Your task to perform on an android device: Open Google Chrome Image 0: 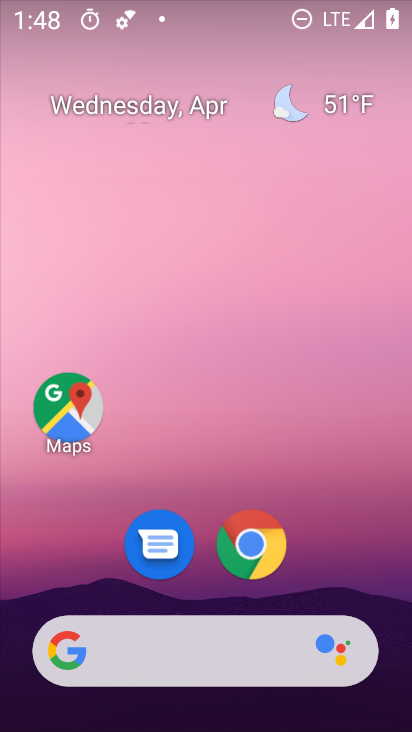
Step 0: drag from (349, 560) to (376, 146)
Your task to perform on an android device: Open Google Chrome Image 1: 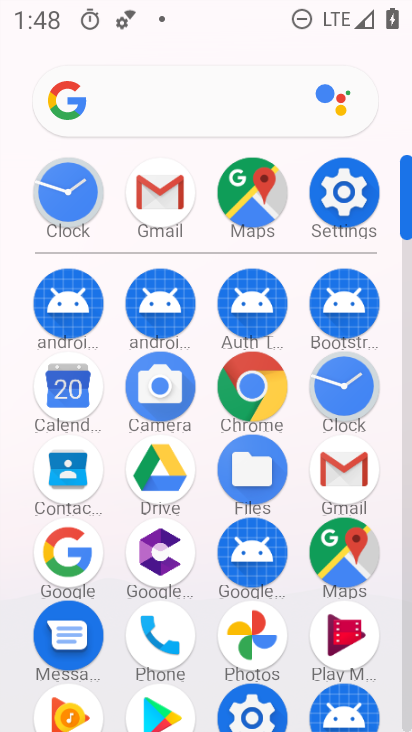
Step 1: click (253, 395)
Your task to perform on an android device: Open Google Chrome Image 2: 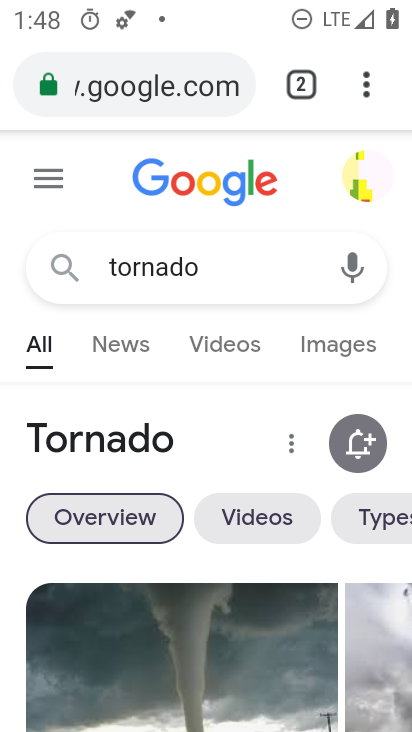
Step 2: task complete